Your task to perform on an android device: clear all cookies in the chrome app Image 0: 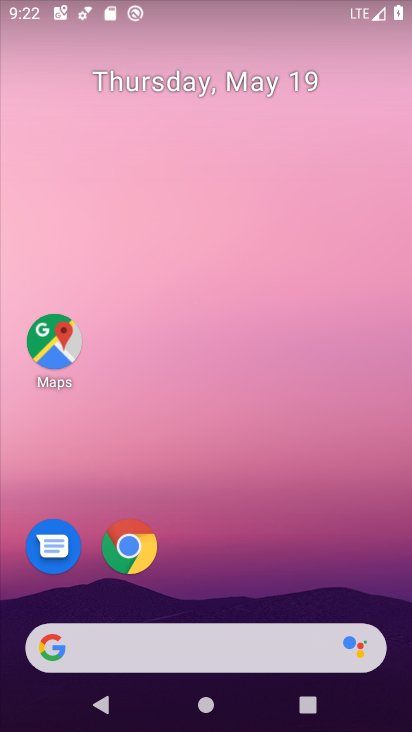
Step 0: drag from (245, 599) to (99, 9)
Your task to perform on an android device: clear all cookies in the chrome app Image 1: 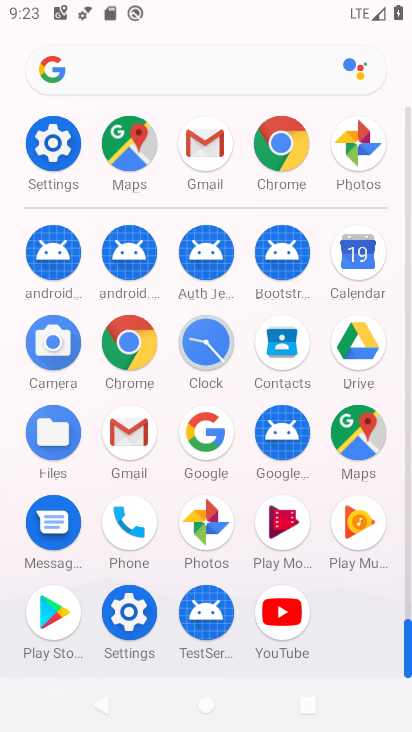
Step 1: click (281, 144)
Your task to perform on an android device: clear all cookies in the chrome app Image 2: 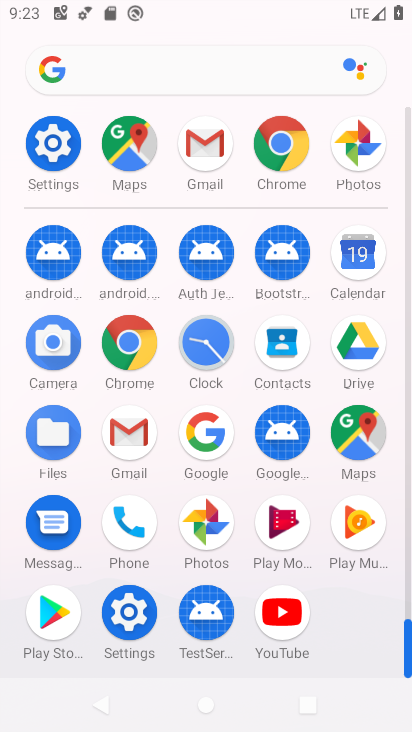
Step 2: click (281, 151)
Your task to perform on an android device: clear all cookies in the chrome app Image 3: 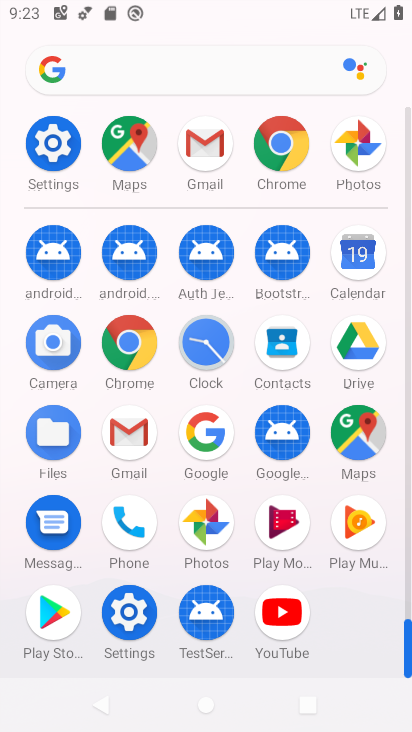
Step 3: click (281, 151)
Your task to perform on an android device: clear all cookies in the chrome app Image 4: 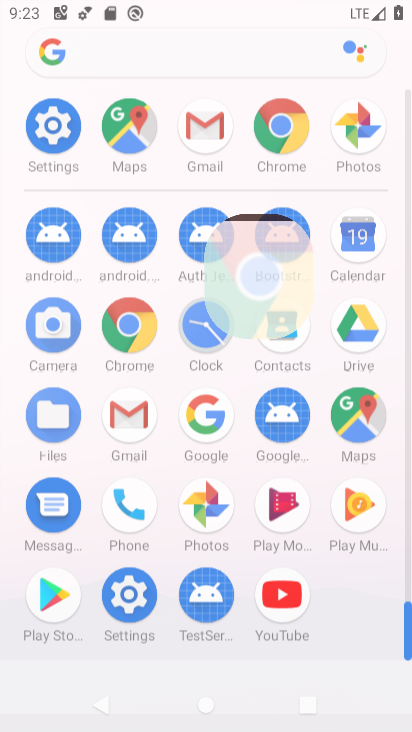
Step 4: click (281, 151)
Your task to perform on an android device: clear all cookies in the chrome app Image 5: 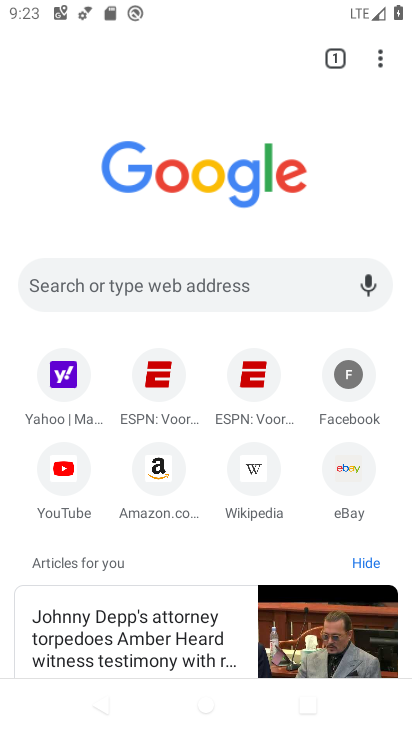
Step 5: click (281, 151)
Your task to perform on an android device: clear all cookies in the chrome app Image 6: 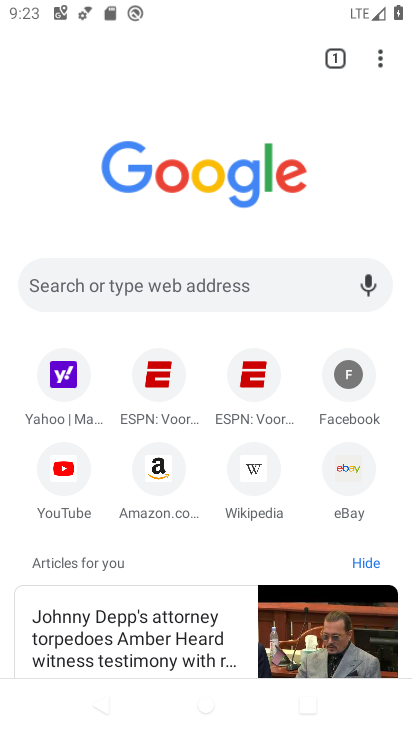
Step 6: click (373, 61)
Your task to perform on an android device: clear all cookies in the chrome app Image 7: 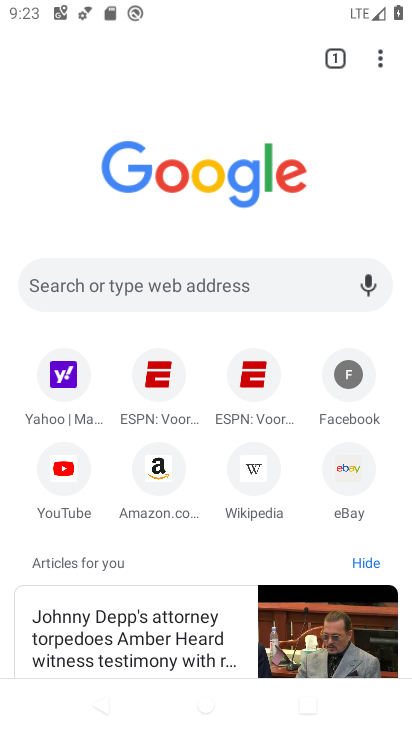
Step 7: drag from (376, 59) to (164, 486)
Your task to perform on an android device: clear all cookies in the chrome app Image 8: 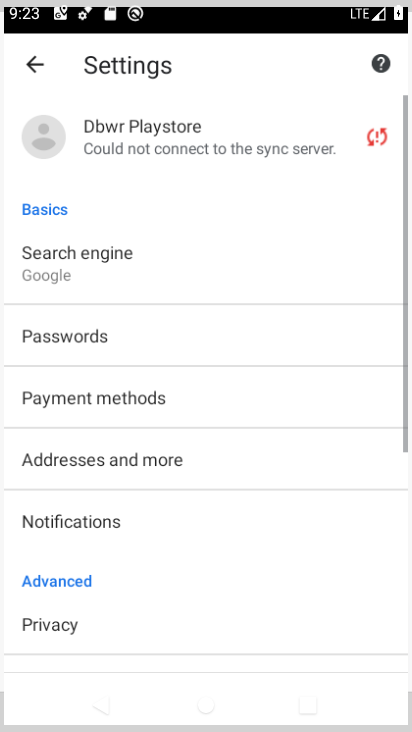
Step 8: click (167, 477)
Your task to perform on an android device: clear all cookies in the chrome app Image 9: 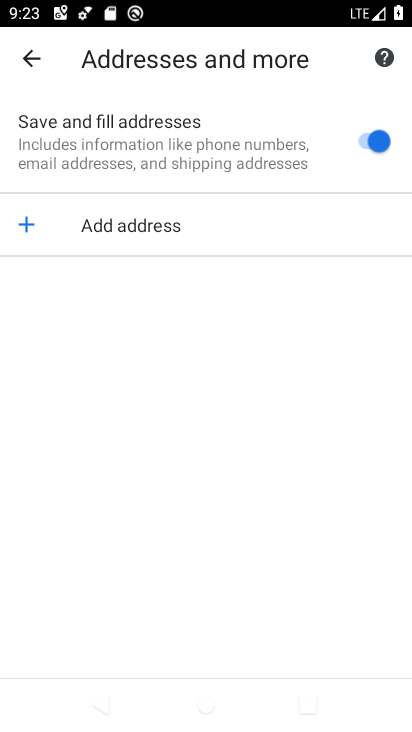
Step 9: click (36, 63)
Your task to perform on an android device: clear all cookies in the chrome app Image 10: 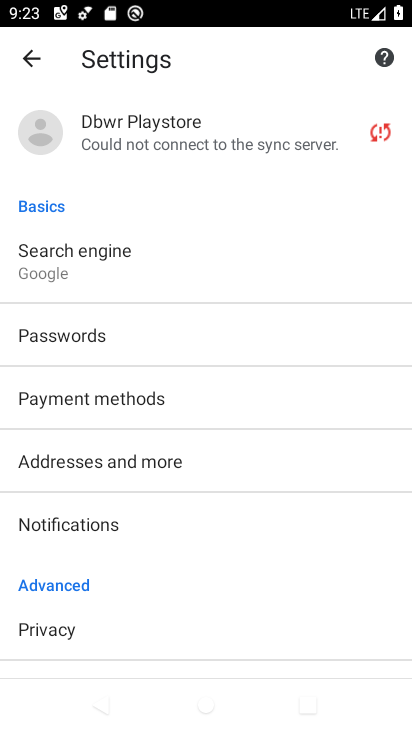
Step 10: drag from (142, 463) to (136, 220)
Your task to perform on an android device: clear all cookies in the chrome app Image 11: 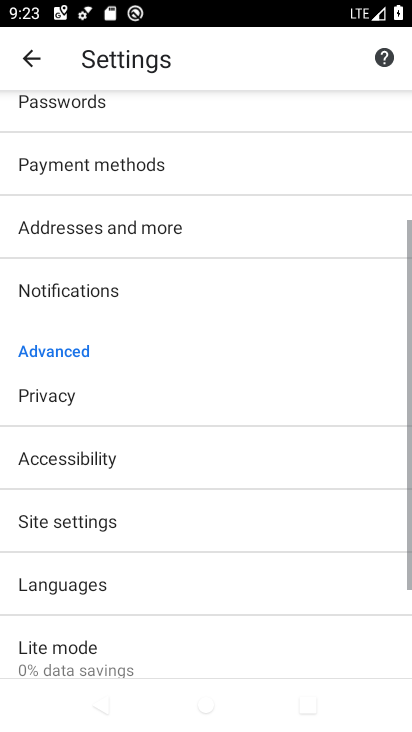
Step 11: drag from (180, 411) to (180, 172)
Your task to perform on an android device: clear all cookies in the chrome app Image 12: 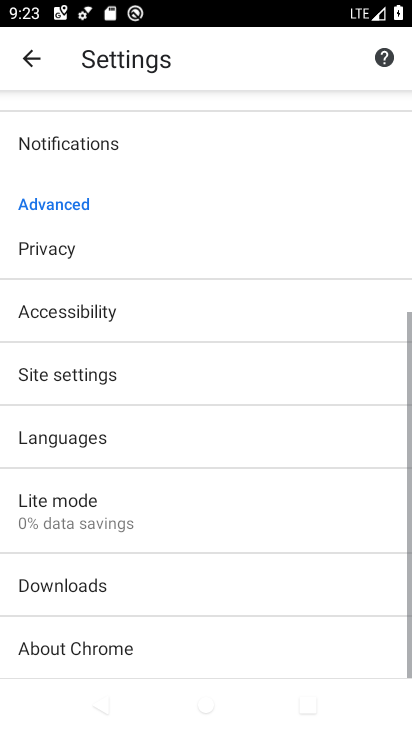
Step 12: drag from (197, 464) to (188, 134)
Your task to perform on an android device: clear all cookies in the chrome app Image 13: 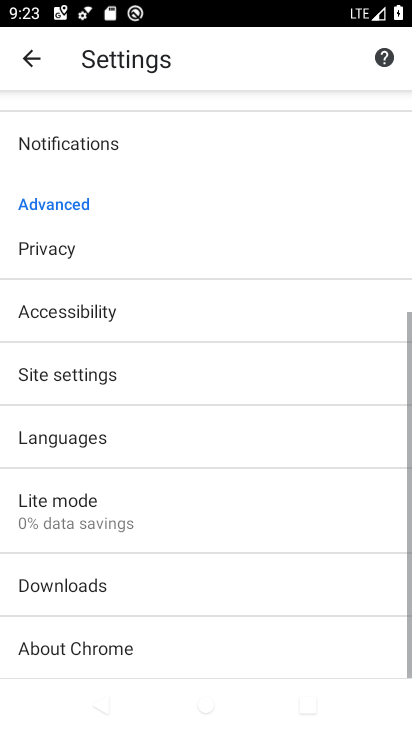
Step 13: click (57, 377)
Your task to perform on an android device: clear all cookies in the chrome app Image 14: 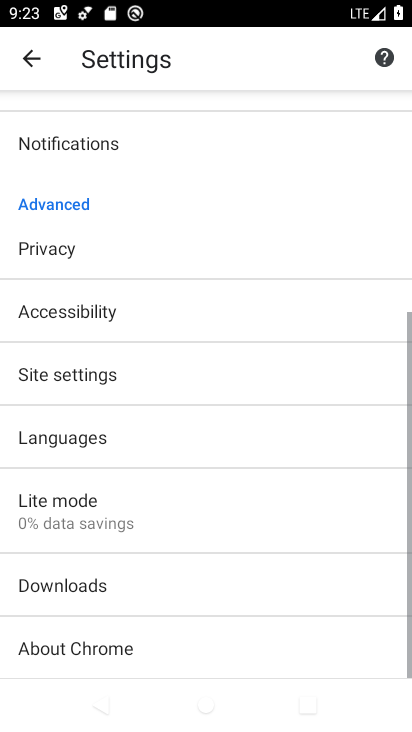
Step 14: click (58, 375)
Your task to perform on an android device: clear all cookies in the chrome app Image 15: 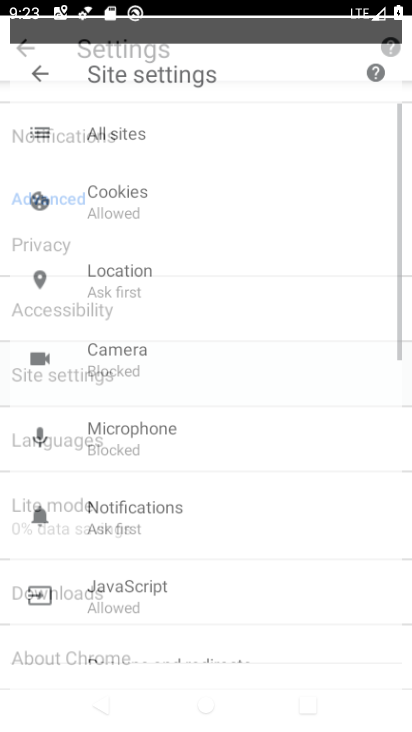
Step 15: click (60, 373)
Your task to perform on an android device: clear all cookies in the chrome app Image 16: 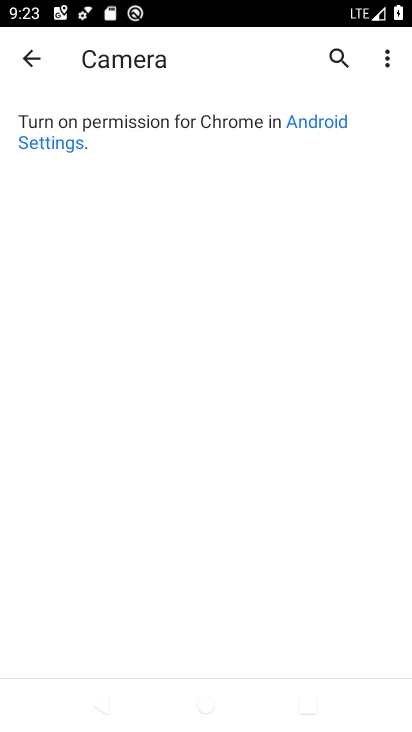
Step 16: click (28, 55)
Your task to perform on an android device: clear all cookies in the chrome app Image 17: 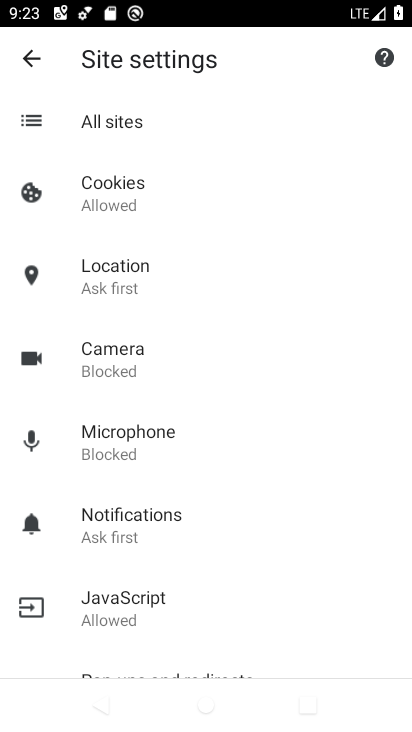
Step 17: click (104, 204)
Your task to perform on an android device: clear all cookies in the chrome app Image 18: 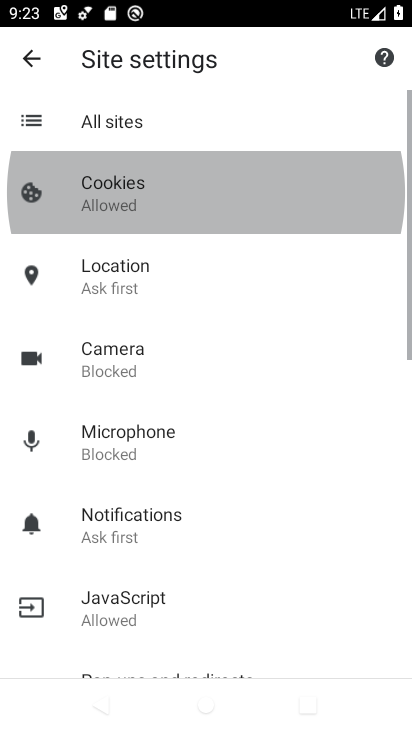
Step 18: click (106, 196)
Your task to perform on an android device: clear all cookies in the chrome app Image 19: 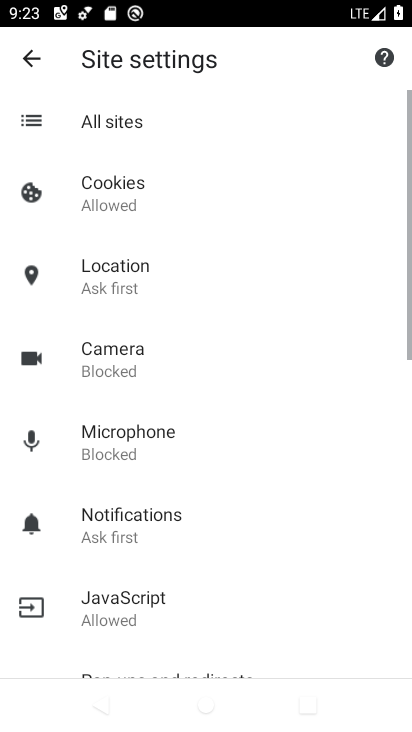
Step 19: click (107, 195)
Your task to perform on an android device: clear all cookies in the chrome app Image 20: 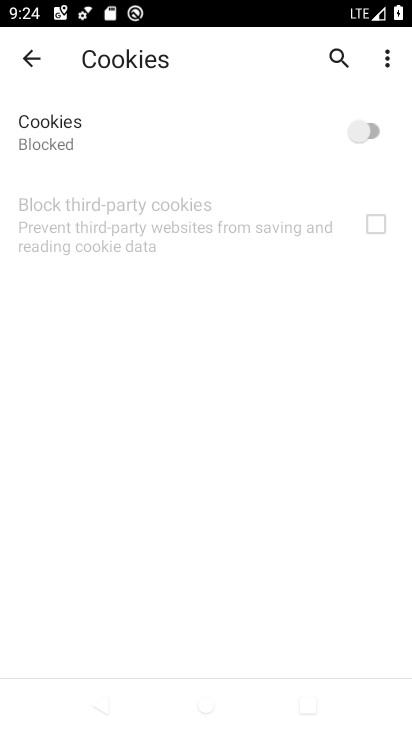
Step 20: task complete